Your task to perform on an android device: stop showing notifications on the lock screen Image 0: 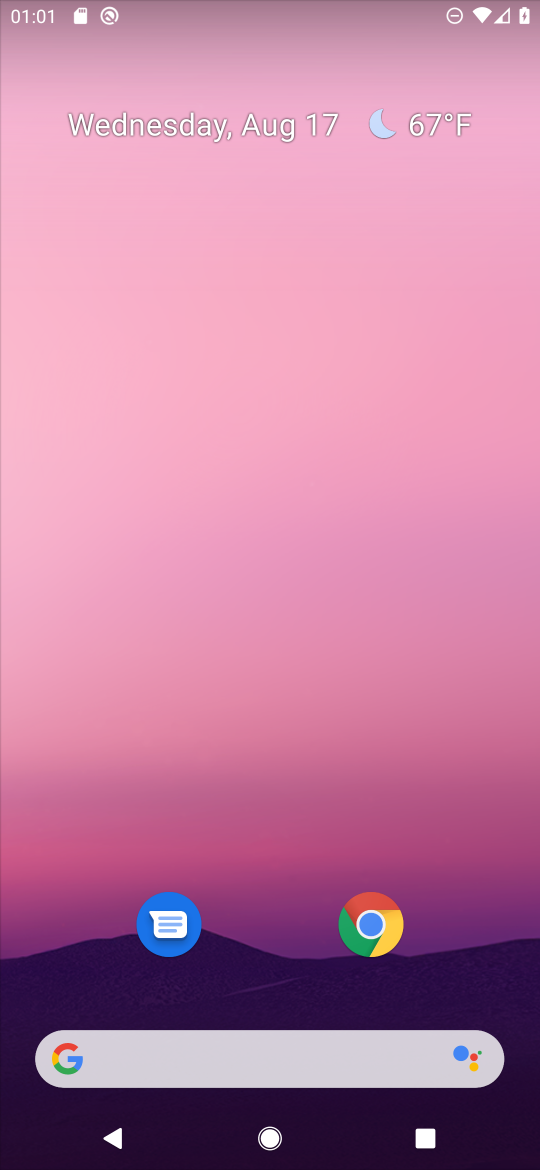
Step 0: drag from (285, 1013) to (277, 215)
Your task to perform on an android device: stop showing notifications on the lock screen Image 1: 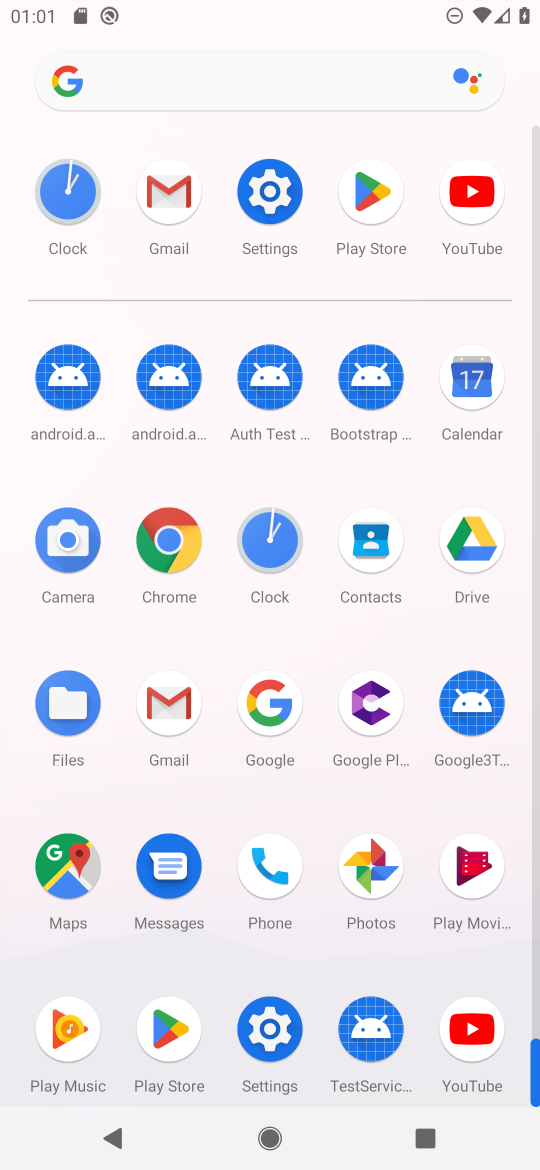
Step 1: click (278, 211)
Your task to perform on an android device: stop showing notifications on the lock screen Image 2: 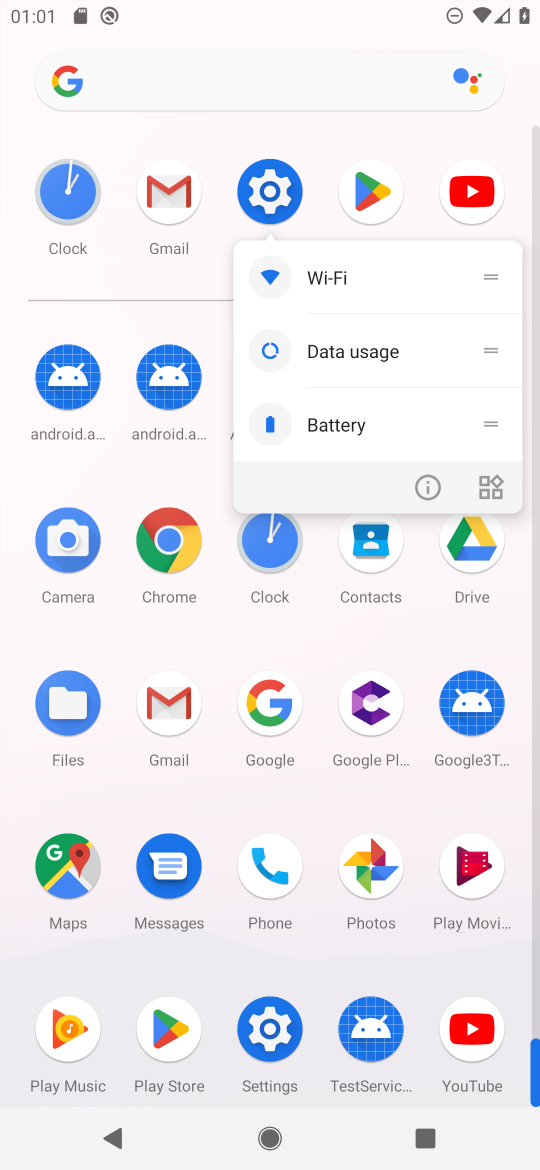
Step 2: click (261, 191)
Your task to perform on an android device: stop showing notifications on the lock screen Image 3: 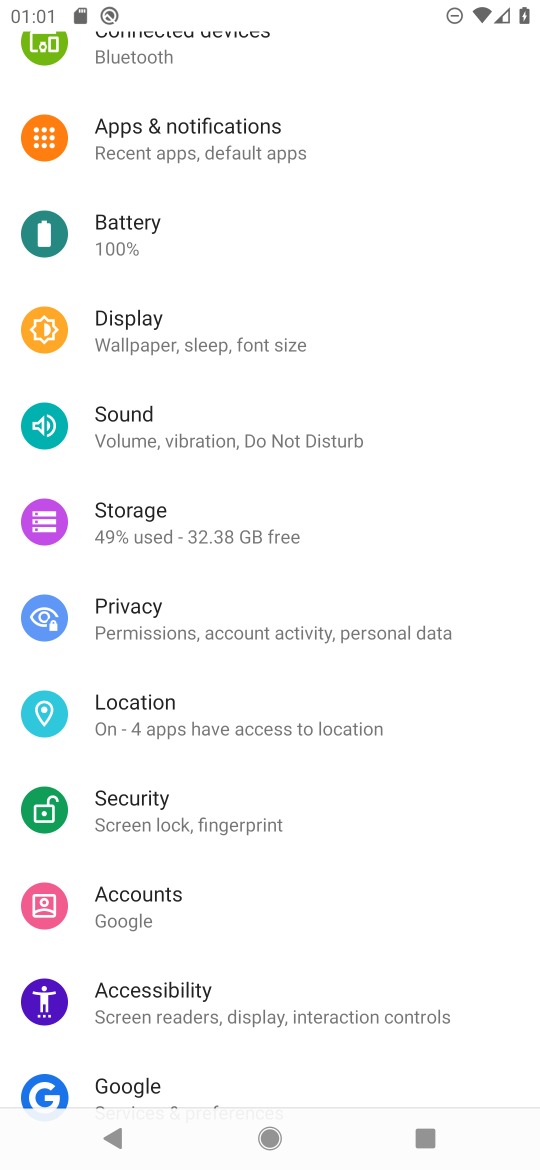
Step 3: click (188, 136)
Your task to perform on an android device: stop showing notifications on the lock screen Image 4: 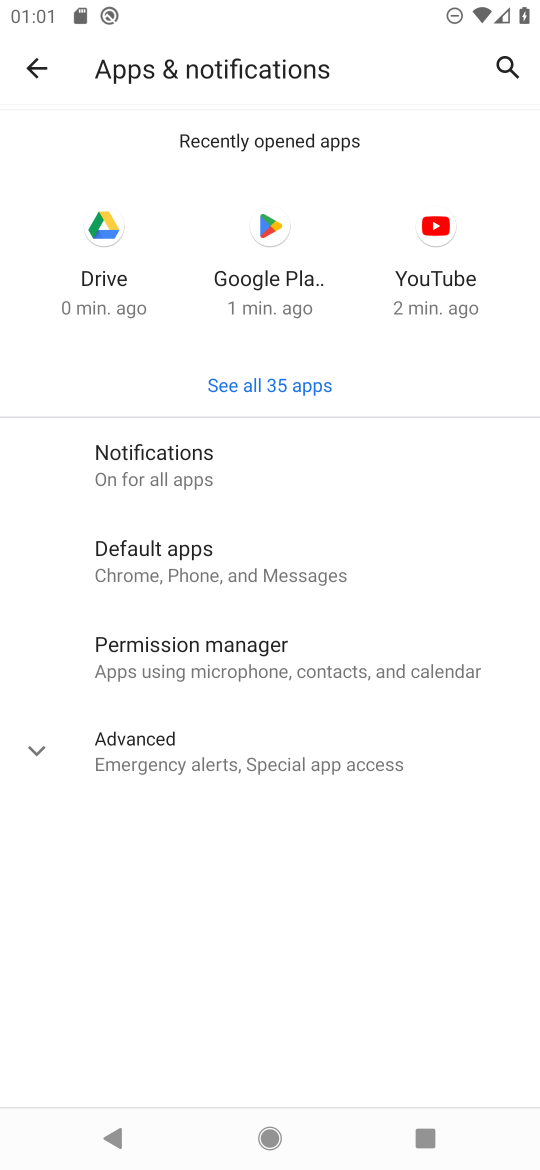
Step 4: click (184, 766)
Your task to perform on an android device: stop showing notifications on the lock screen Image 5: 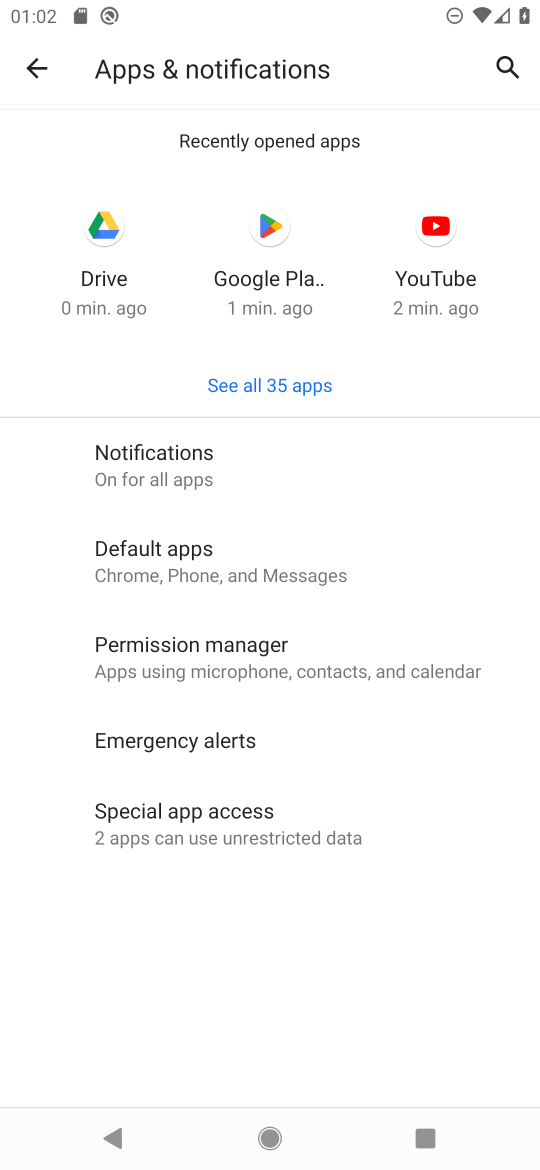
Step 5: click (192, 474)
Your task to perform on an android device: stop showing notifications on the lock screen Image 6: 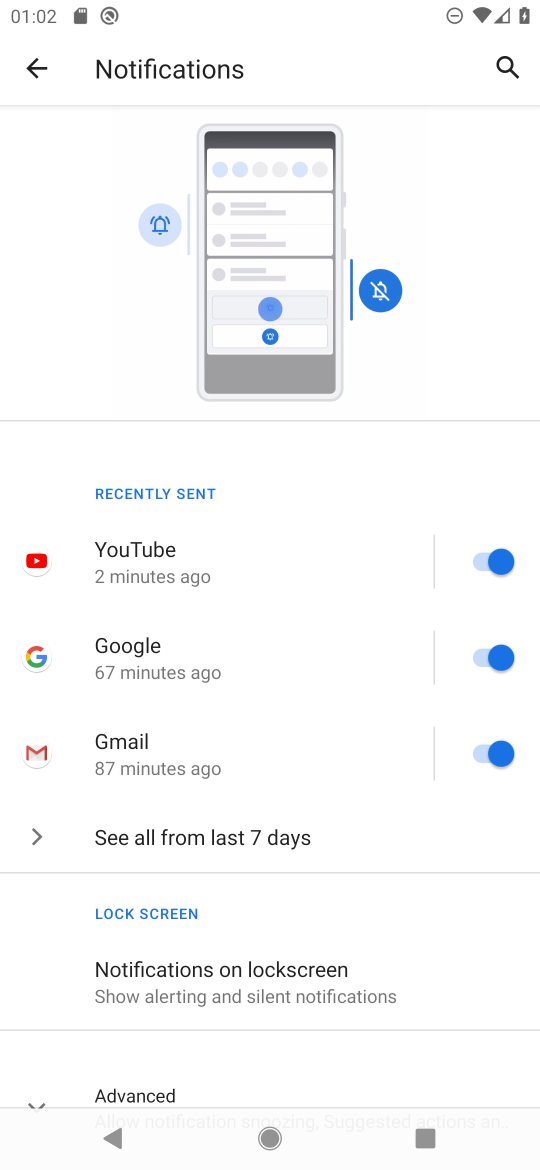
Step 6: click (289, 997)
Your task to perform on an android device: stop showing notifications on the lock screen Image 7: 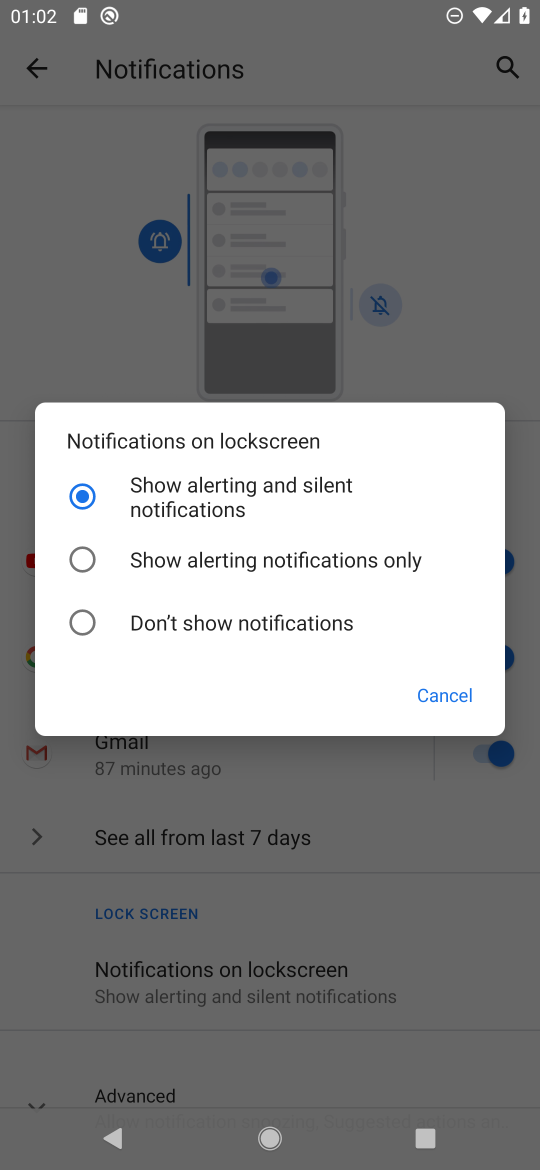
Step 7: click (203, 634)
Your task to perform on an android device: stop showing notifications on the lock screen Image 8: 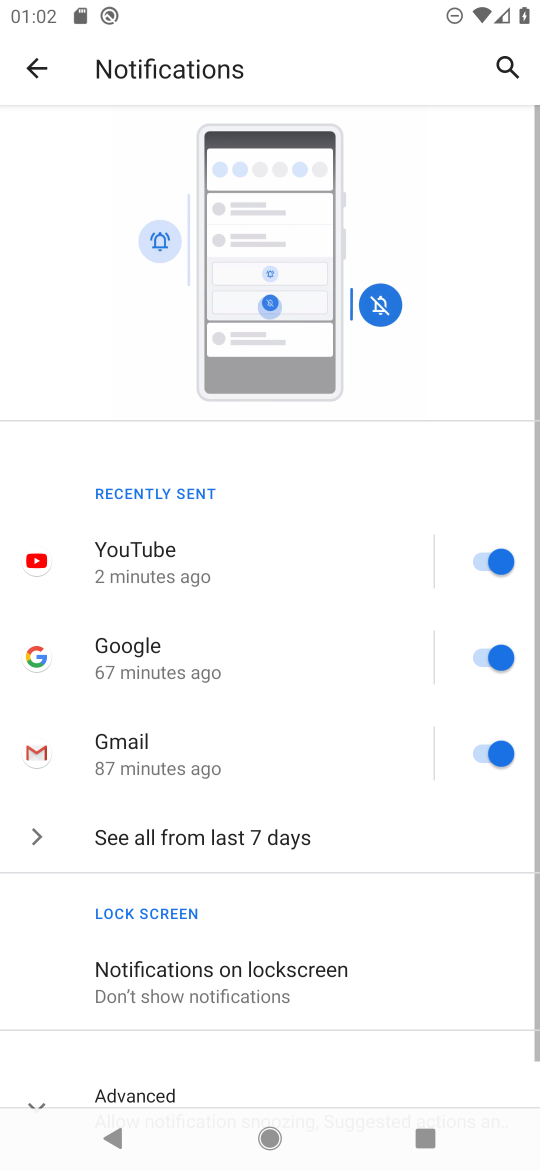
Step 8: task complete